Your task to perform on an android device: change notifications settings Image 0: 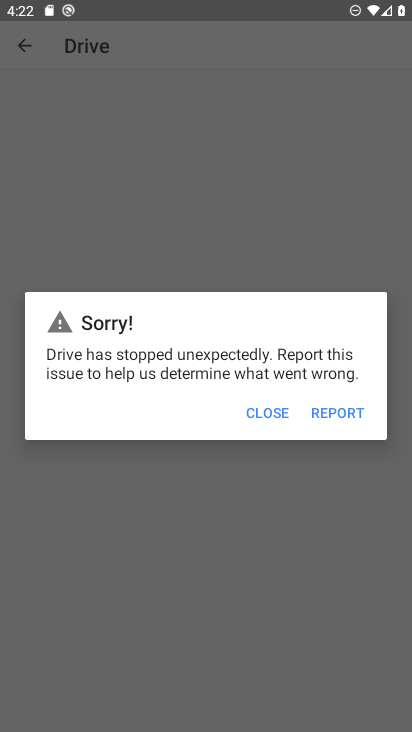
Step 0: press home button
Your task to perform on an android device: change notifications settings Image 1: 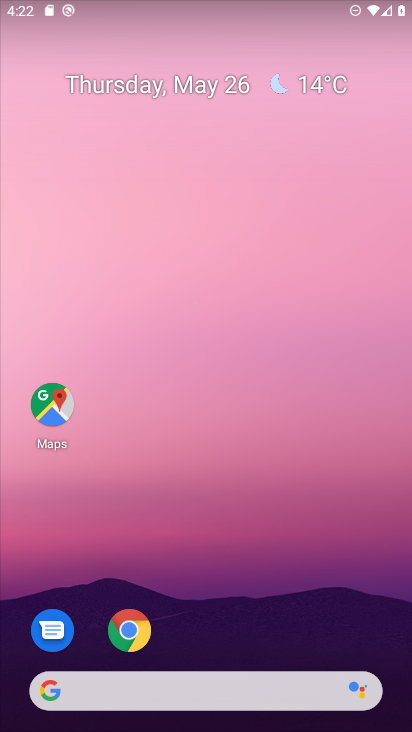
Step 1: drag from (261, 632) to (199, 100)
Your task to perform on an android device: change notifications settings Image 2: 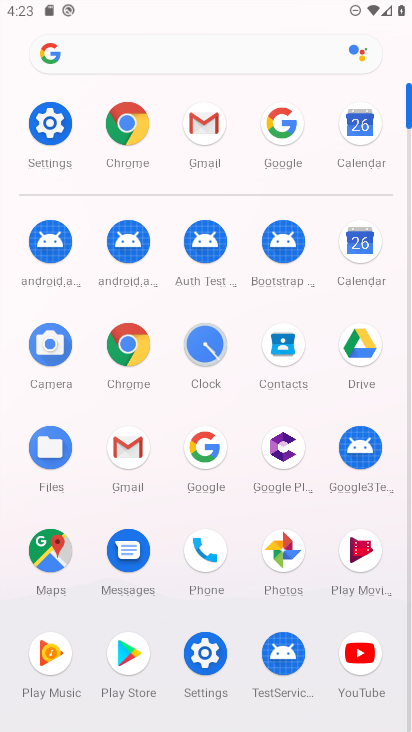
Step 2: click (206, 649)
Your task to perform on an android device: change notifications settings Image 3: 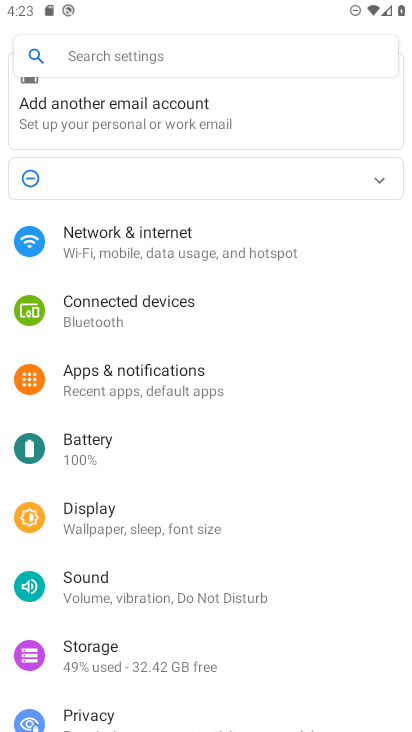
Step 3: click (144, 382)
Your task to perform on an android device: change notifications settings Image 4: 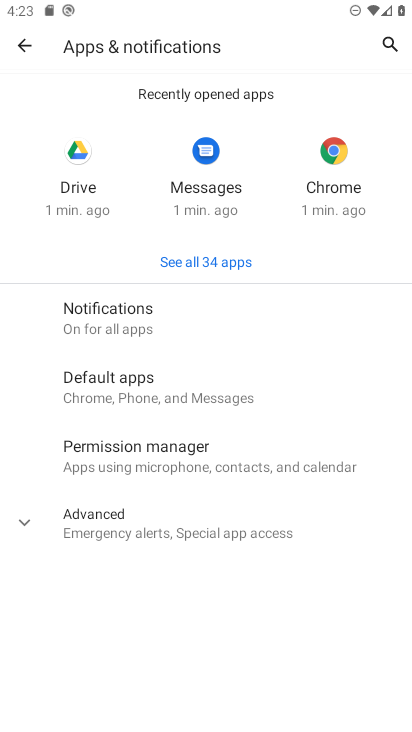
Step 4: click (118, 333)
Your task to perform on an android device: change notifications settings Image 5: 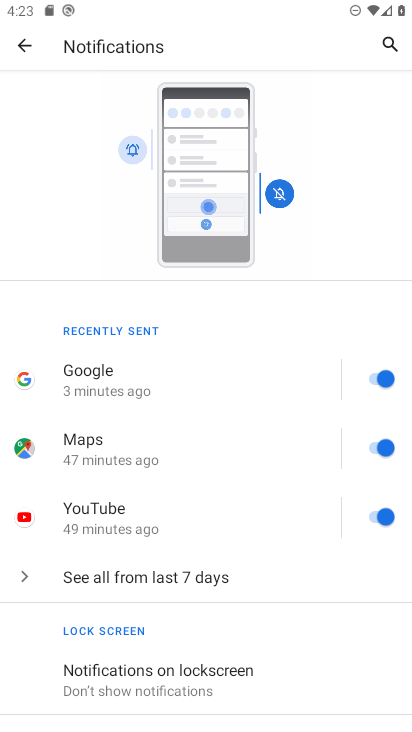
Step 5: drag from (150, 609) to (210, 449)
Your task to perform on an android device: change notifications settings Image 6: 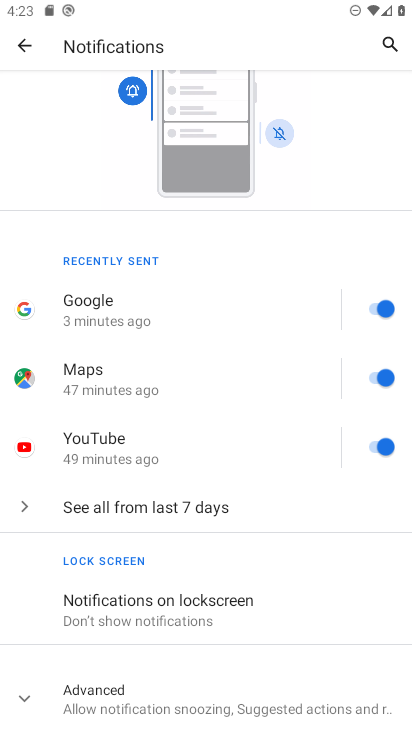
Step 6: click (203, 708)
Your task to perform on an android device: change notifications settings Image 7: 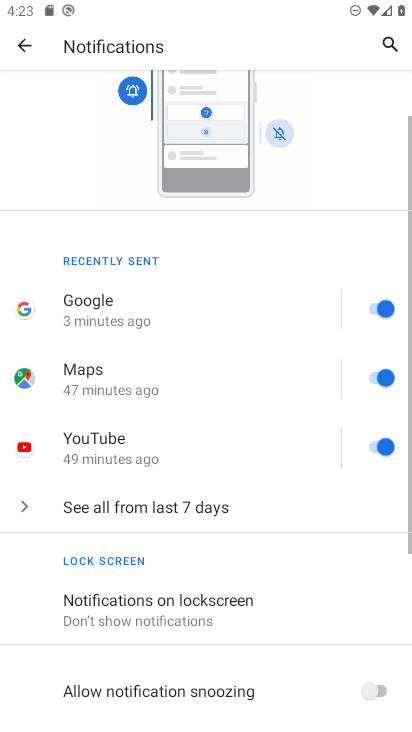
Step 7: drag from (201, 678) to (239, 518)
Your task to perform on an android device: change notifications settings Image 8: 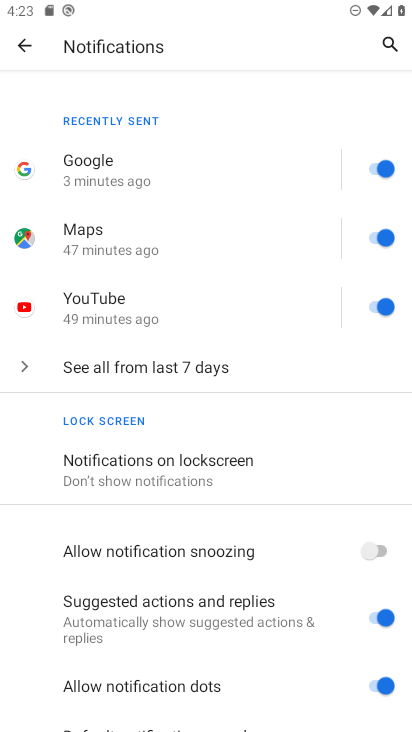
Step 8: drag from (217, 658) to (231, 560)
Your task to perform on an android device: change notifications settings Image 9: 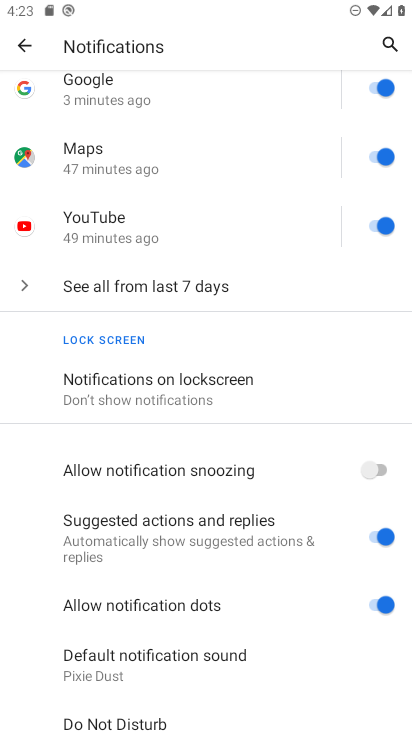
Step 9: click (391, 606)
Your task to perform on an android device: change notifications settings Image 10: 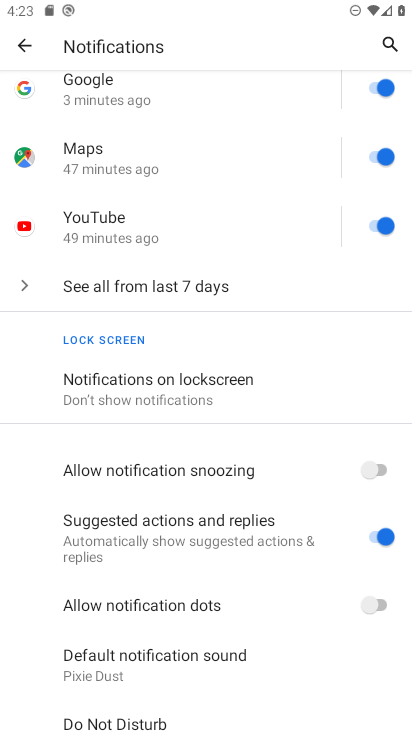
Step 10: task complete